Your task to perform on an android device: Open wifi settings Image 0: 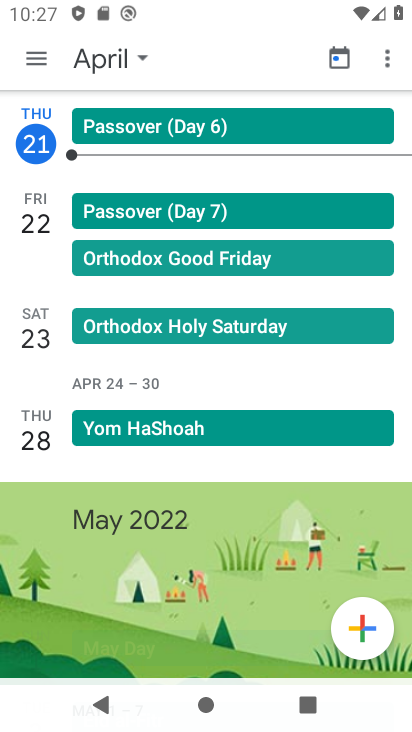
Step 0: press home button
Your task to perform on an android device: Open wifi settings Image 1: 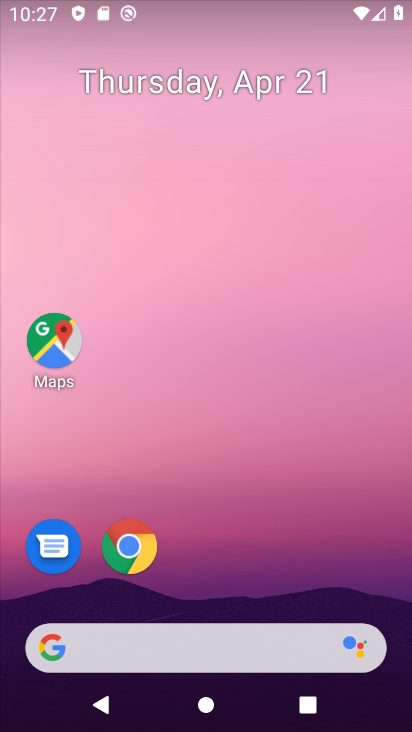
Step 1: drag from (236, 578) to (249, 63)
Your task to perform on an android device: Open wifi settings Image 2: 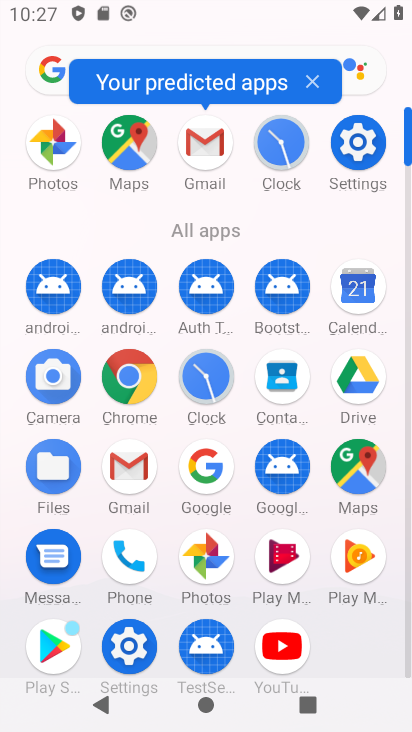
Step 2: click (125, 653)
Your task to perform on an android device: Open wifi settings Image 3: 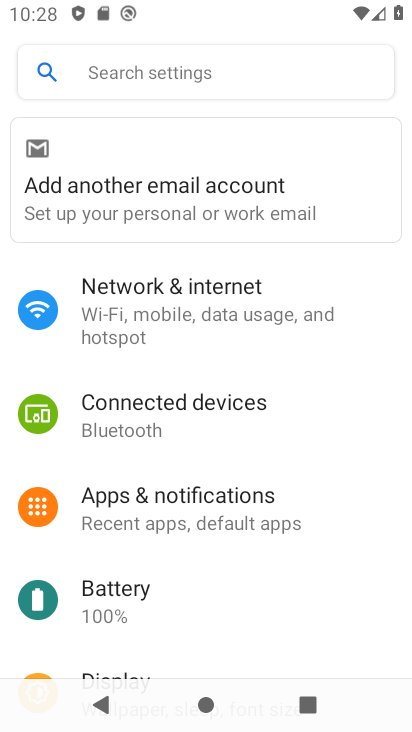
Step 3: click (214, 275)
Your task to perform on an android device: Open wifi settings Image 4: 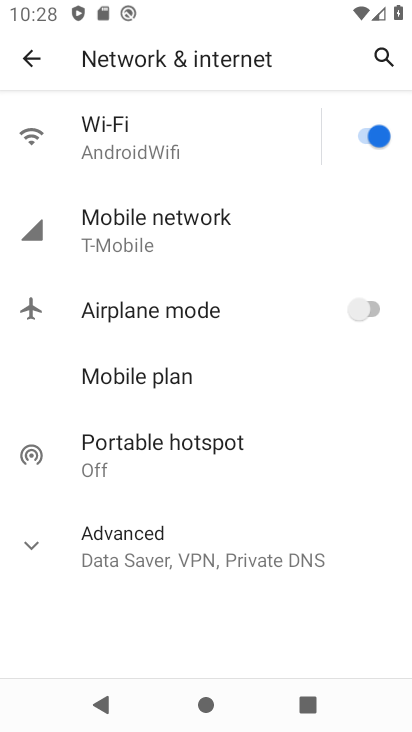
Step 4: click (199, 122)
Your task to perform on an android device: Open wifi settings Image 5: 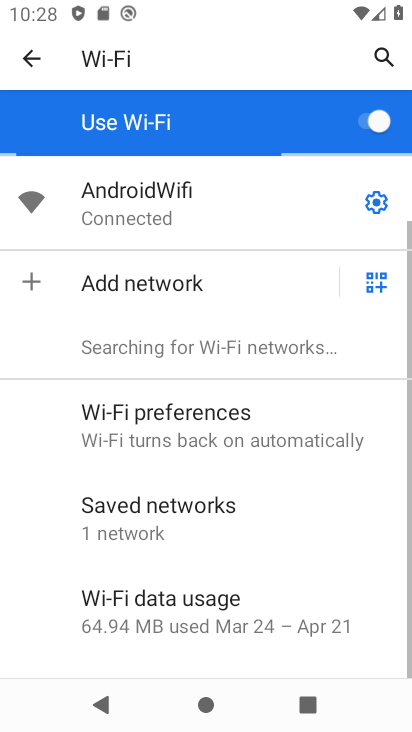
Step 5: click (377, 205)
Your task to perform on an android device: Open wifi settings Image 6: 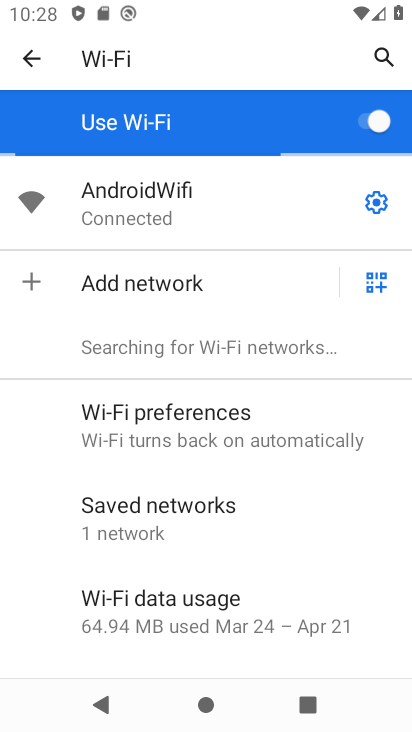
Step 6: click (377, 205)
Your task to perform on an android device: Open wifi settings Image 7: 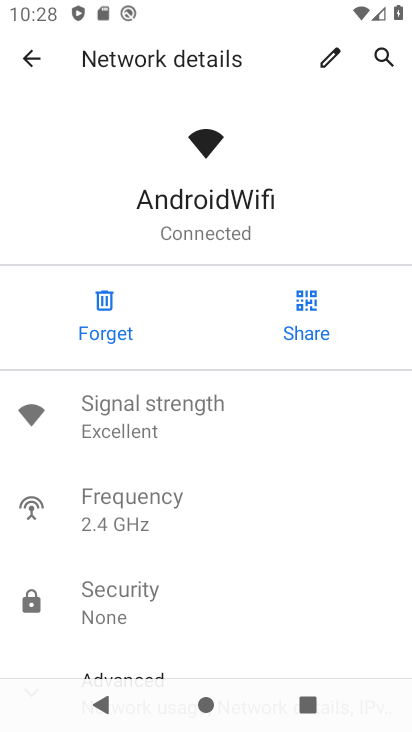
Step 7: task complete